Your task to perform on an android device: turn on javascript in the chrome app Image 0: 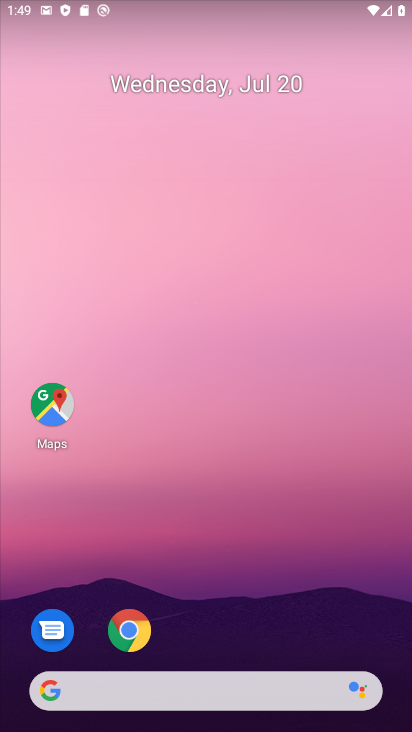
Step 0: click (129, 630)
Your task to perform on an android device: turn on javascript in the chrome app Image 1: 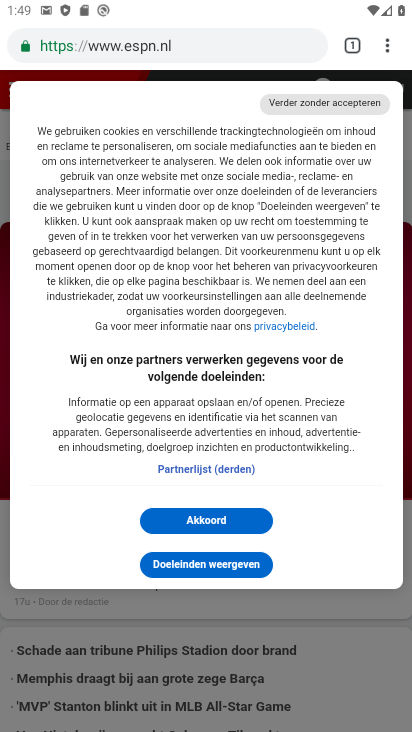
Step 1: click (386, 45)
Your task to perform on an android device: turn on javascript in the chrome app Image 2: 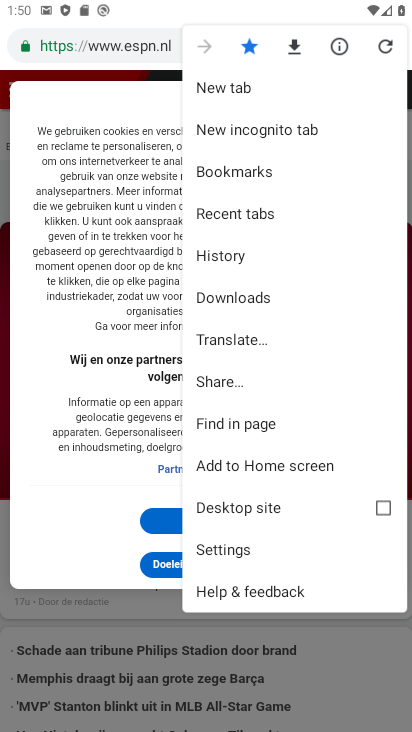
Step 2: click (220, 548)
Your task to perform on an android device: turn on javascript in the chrome app Image 3: 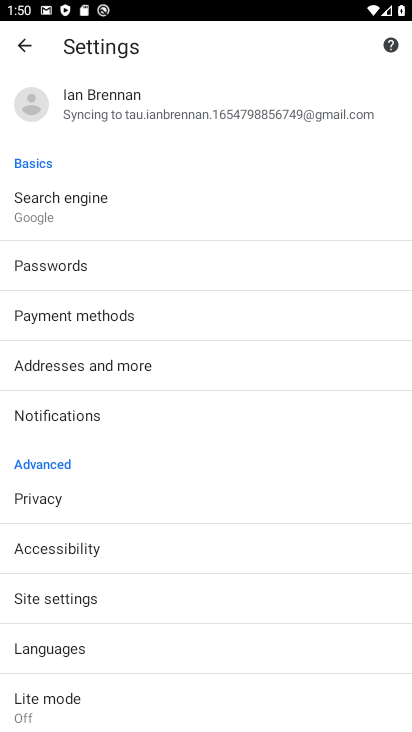
Step 3: click (87, 599)
Your task to perform on an android device: turn on javascript in the chrome app Image 4: 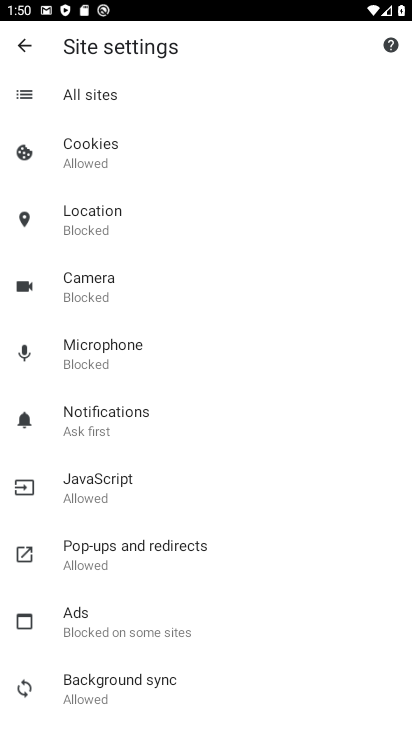
Step 4: click (102, 488)
Your task to perform on an android device: turn on javascript in the chrome app Image 5: 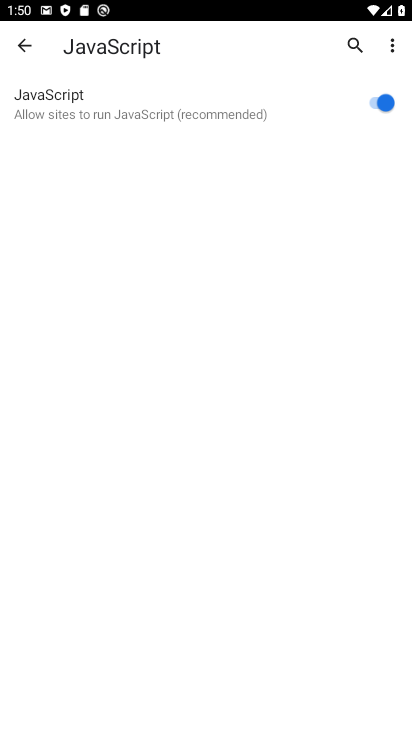
Step 5: task complete